Your task to perform on an android device: Go to internet settings Image 0: 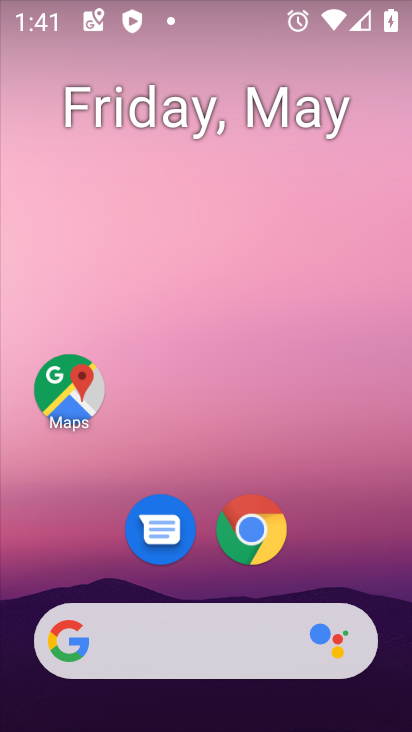
Step 0: press home button
Your task to perform on an android device: Go to internet settings Image 1: 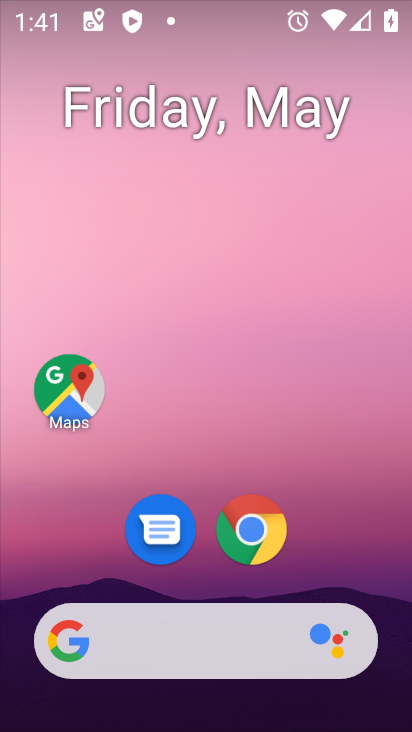
Step 1: drag from (393, 541) to (377, 333)
Your task to perform on an android device: Go to internet settings Image 2: 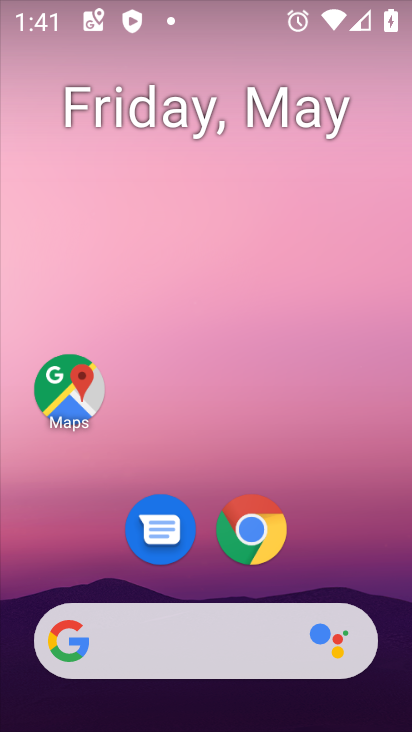
Step 2: drag from (385, 632) to (281, 260)
Your task to perform on an android device: Go to internet settings Image 3: 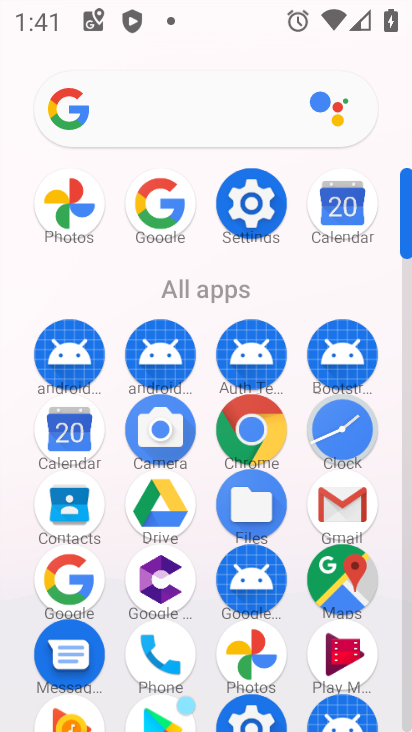
Step 3: click (232, 209)
Your task to perform on an android device: Go to internet settings Image 4: 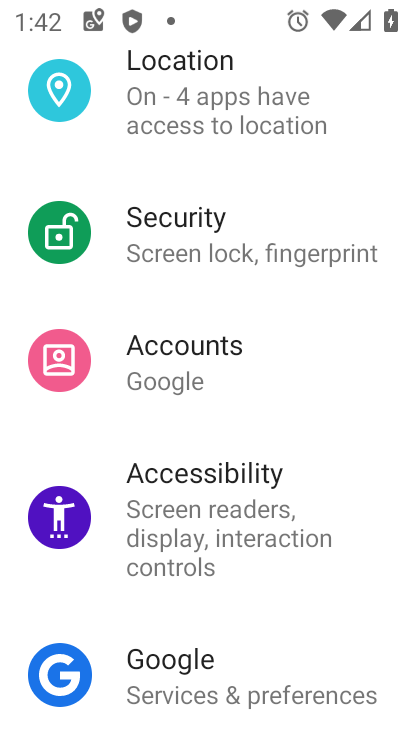
Step 4: drag from (372, 646) to (362, 707)
Your task to perform on an android device: Go to internet settings Image 5: 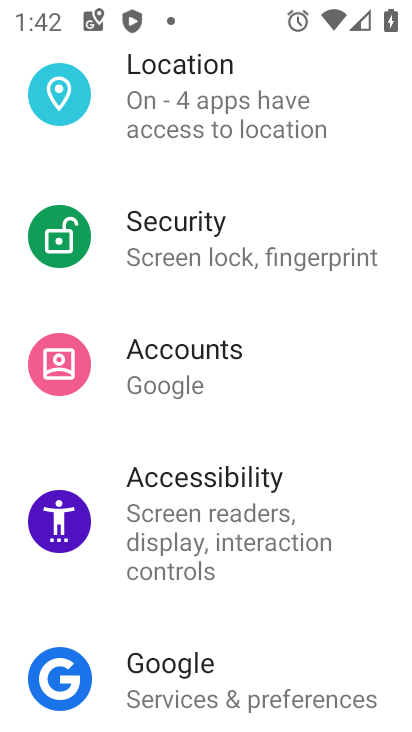
Step 5: drag from (317, 56) to (312, 493)
Your task to perform on an android device: Go to internet settings Image 6: 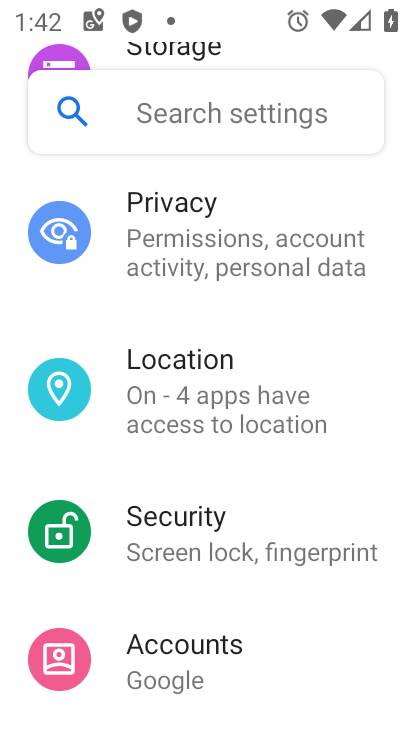
Step 6: drag from (311, 182) to (350, 593)
Your task to perform on an android device: Go to internet settings Image 7: 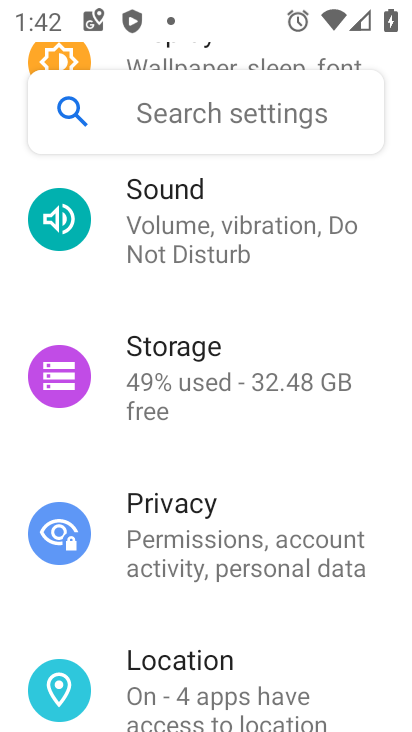
Step 7: drag from (335, 227) to (367, 590)
Your task to perform on an android device: Go to internet settings Image 8: 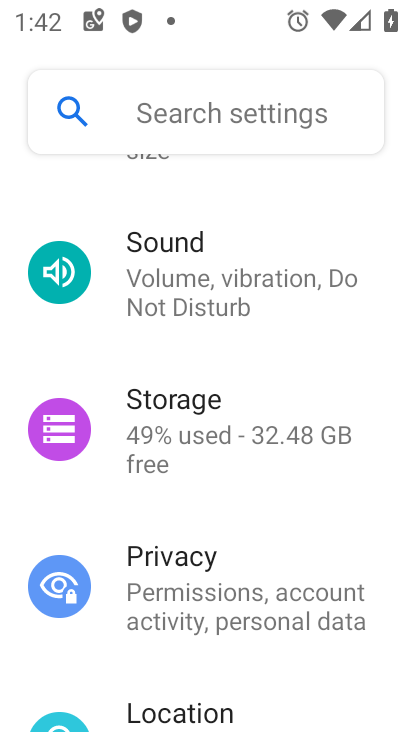
Step 8: drag from (341, 256) to (355, 641)
Your task to perform on an android device: Go to internet settings Image 9: 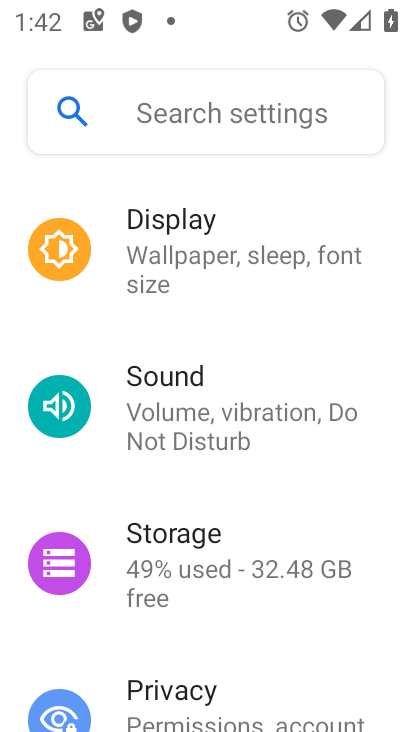
Step 9: drag from (313, 258) to (334, 657)
Your task to perform on an android device: Go to internet settings Image 10: 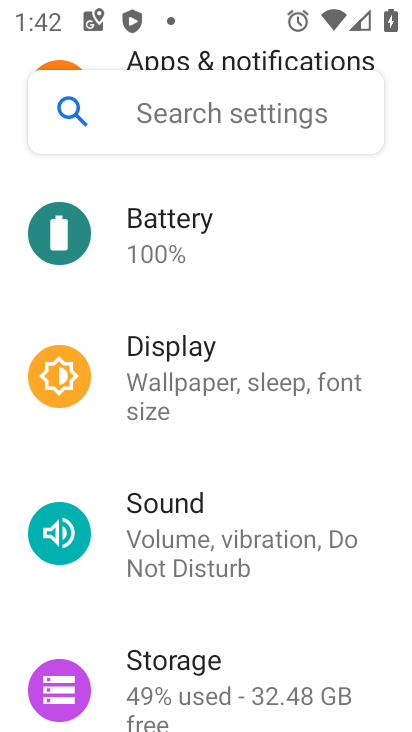
Step 10: drag from (325, 256) to (343, 731)
Your task to perform on an android device: Go to internet settings Image 11: 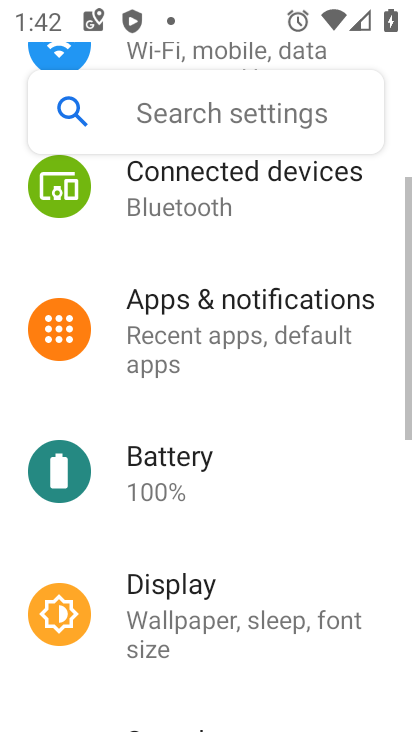
Step 11: drag from (306, 231) to (365, 596)
Your task to perform on an android device: Go to internet settings Image 12: 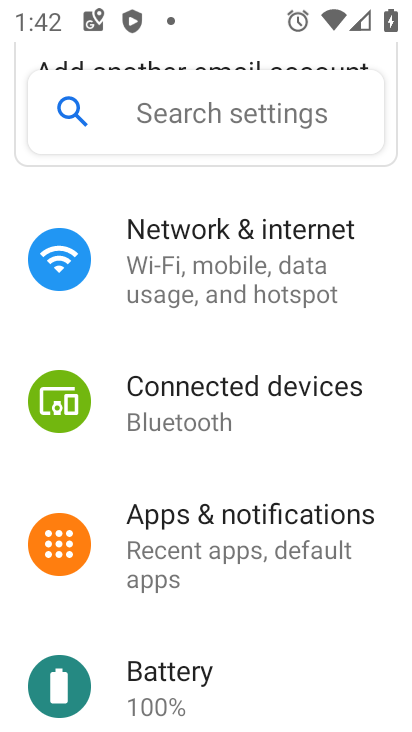
Step 12: click (251, 262)
Your task to perform on an android device: Go to internet settings Image 13: 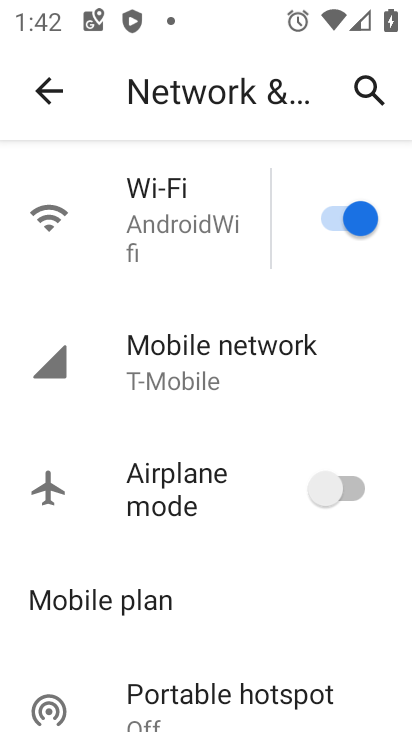
Step 13: click (154, 361)
Your task to perform on an android device: Go to internet settings Image 14: 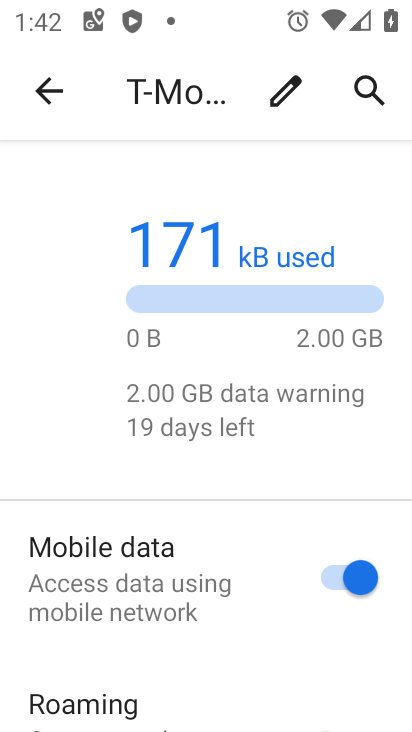
Step 14: task complete